Your task to perform on an android device: Open Amazon Image 0: 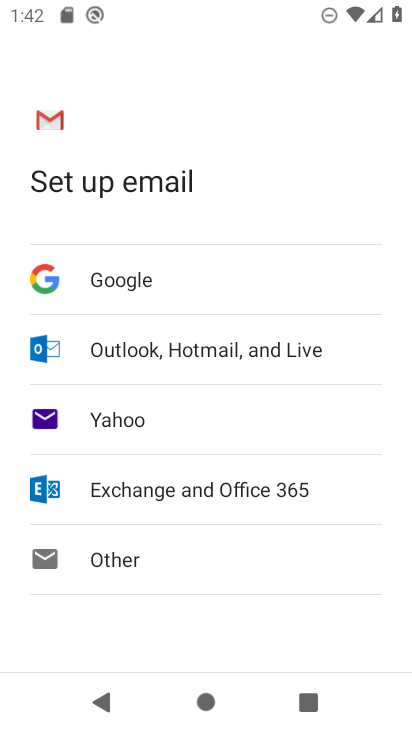
Step 0: press home button
Your task to perform on an android device: Open Amazon Image 1: 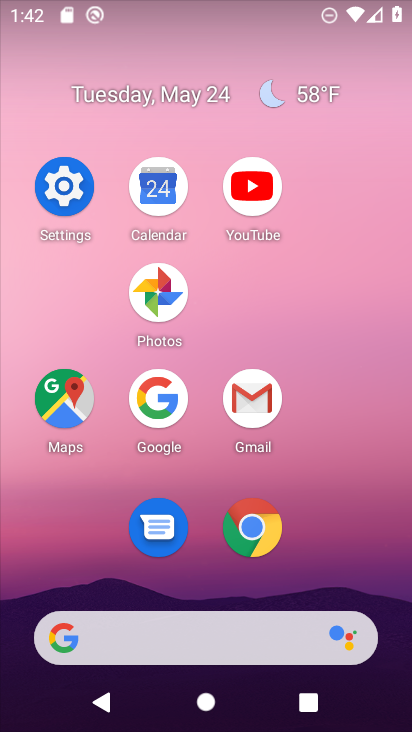
Step 1: click (249, 533)
Your task to perform on an android device: Open Amazon Image 2: 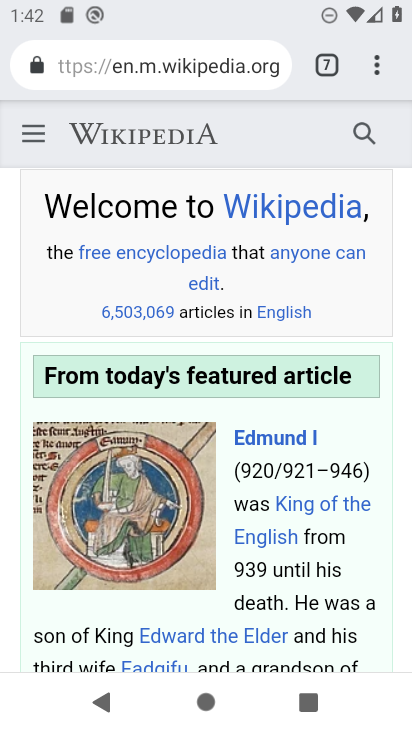
Step 2: click (330, 63)
Your task to perform on an android device: Open Amazon Image 3: 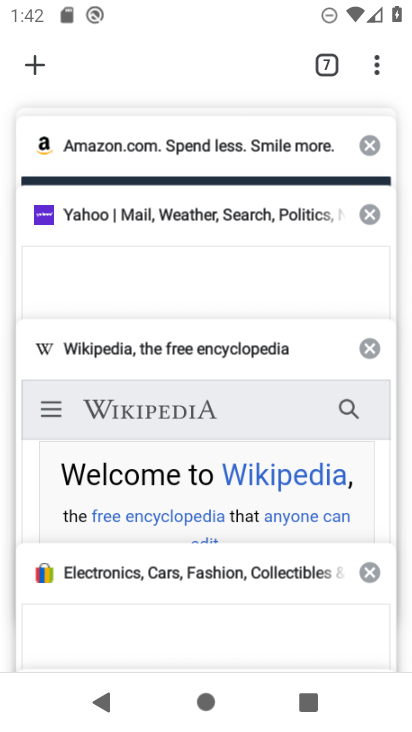
Step 3: click (199, 153)
Your task to perform on an android device: Open Amazon Image 4: 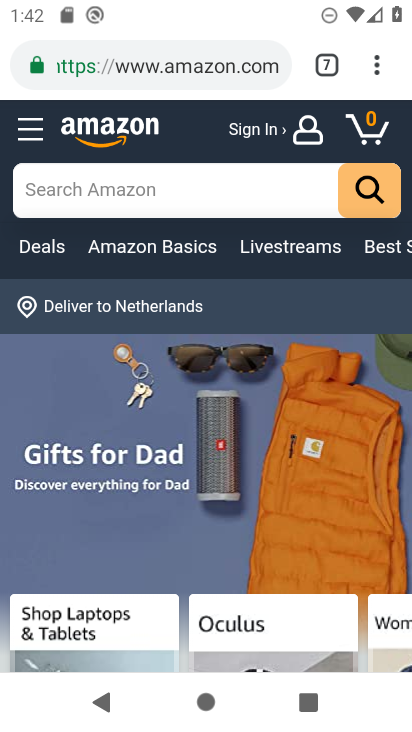
Step 4: task complete